Your task to perform on an android device: Open wifi settings Image 0: 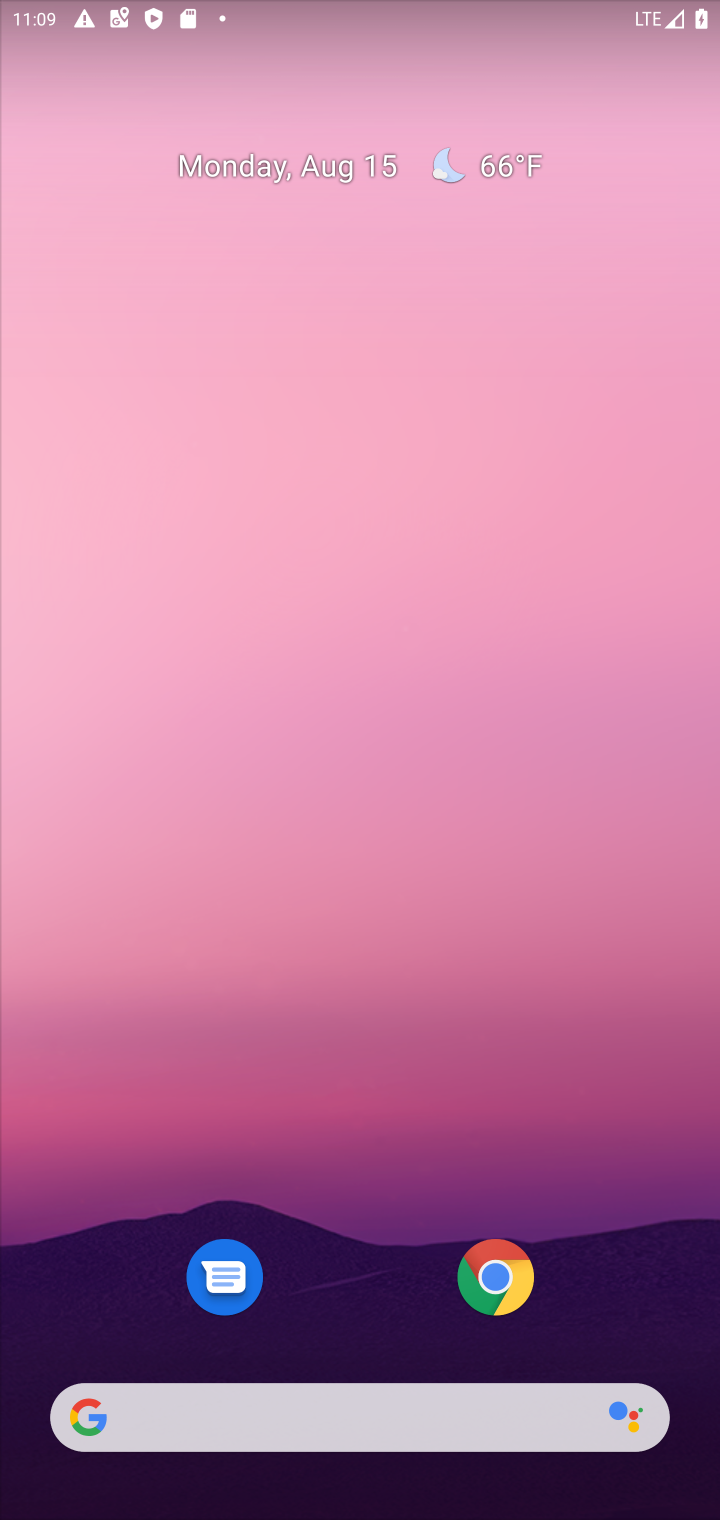
Step 0: drag from (477, 1407) to (520, 507)
Your task to perform on an android device: Open wifi settings Image 1: 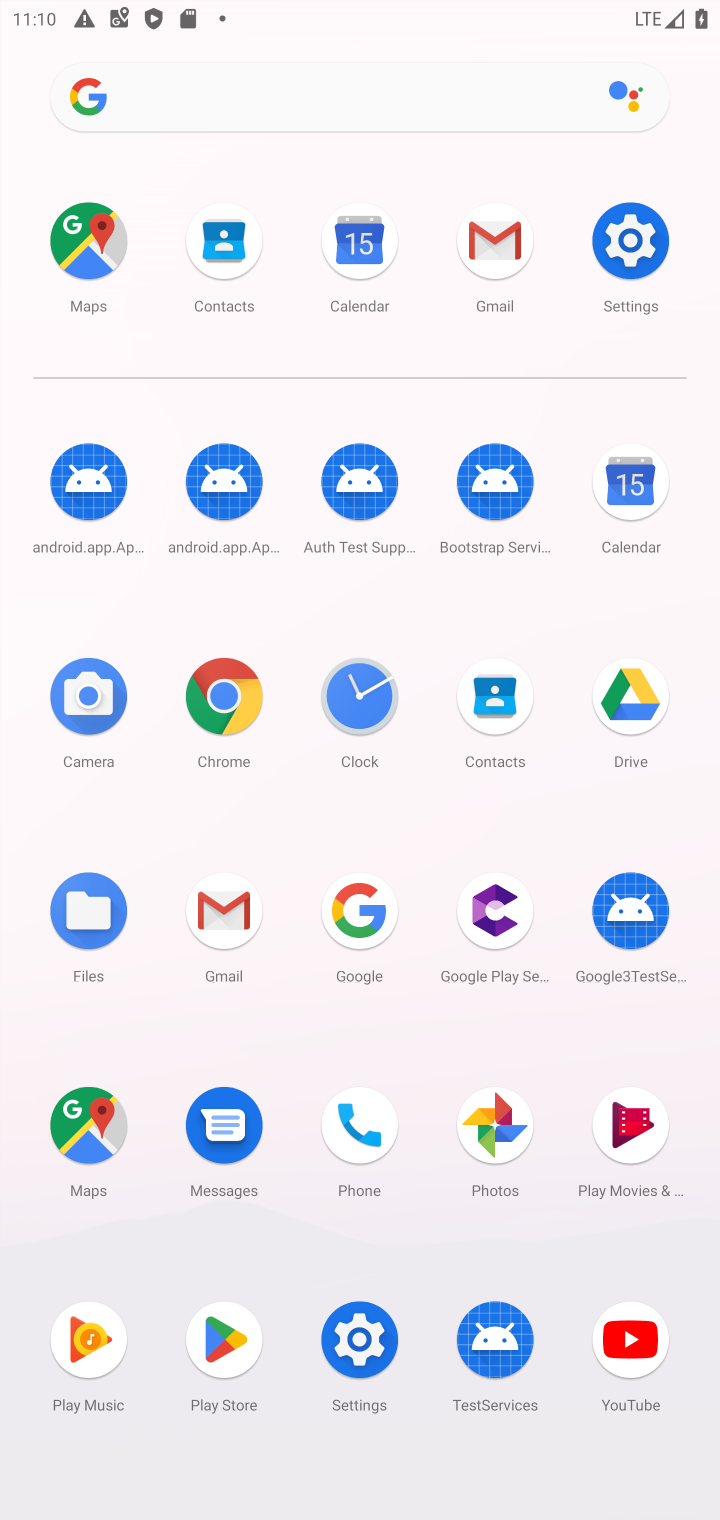
Step 1: click (626, 234)
Your task to perform on an android device: Open wifi settings Image 2: 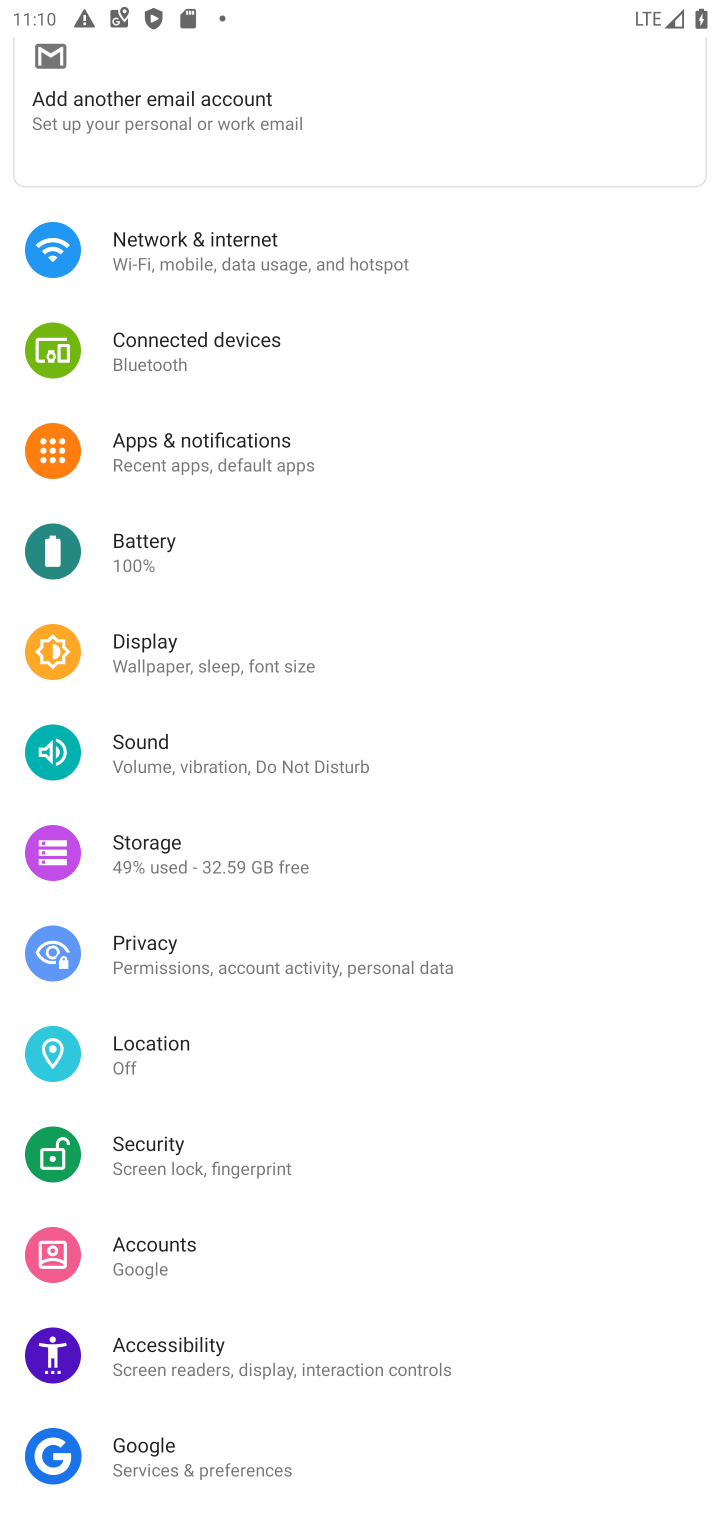
Step 2: click (400, 240)
Your task to perform on an android device: Open wifi settings Image 3: 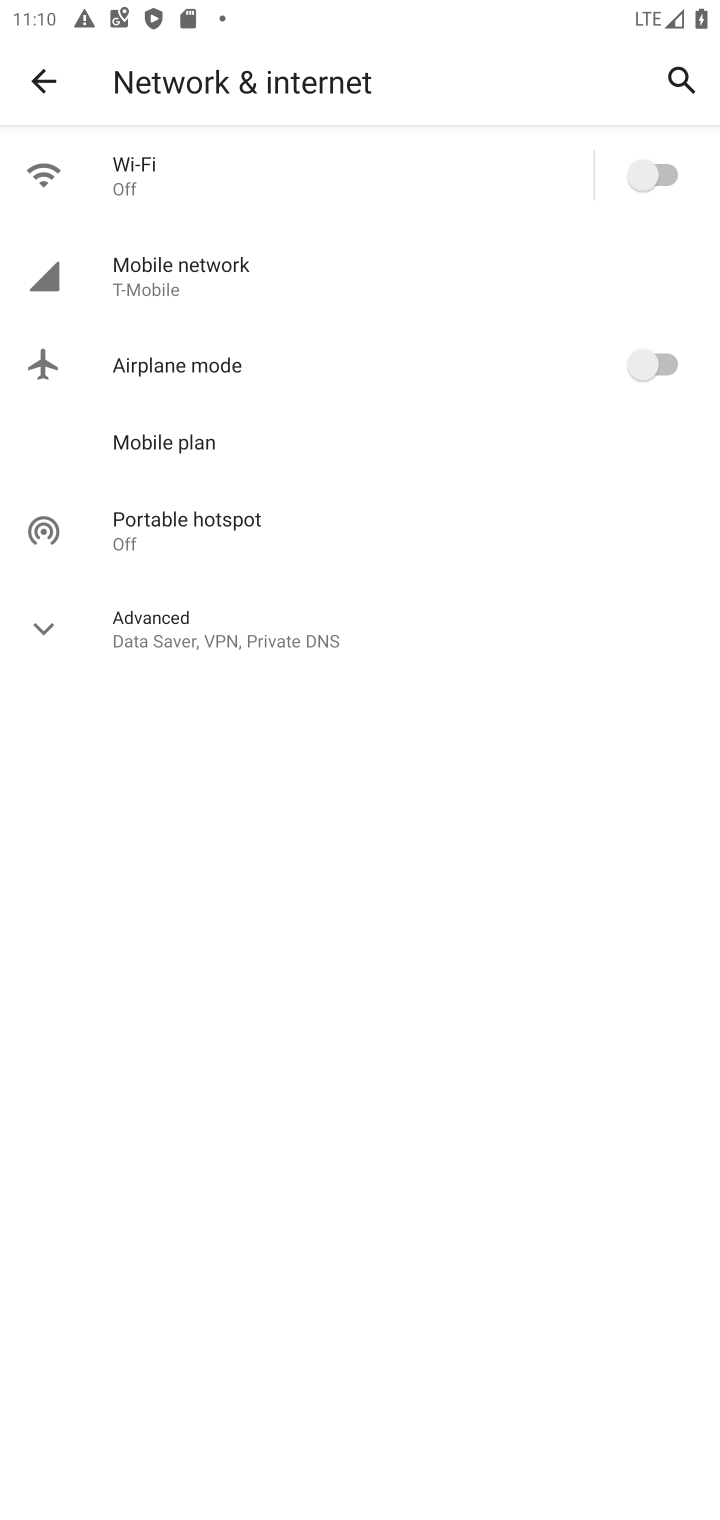
Step 3: click (242, 189)
Your task to perform on an android device: Open wifi settings Image 4: 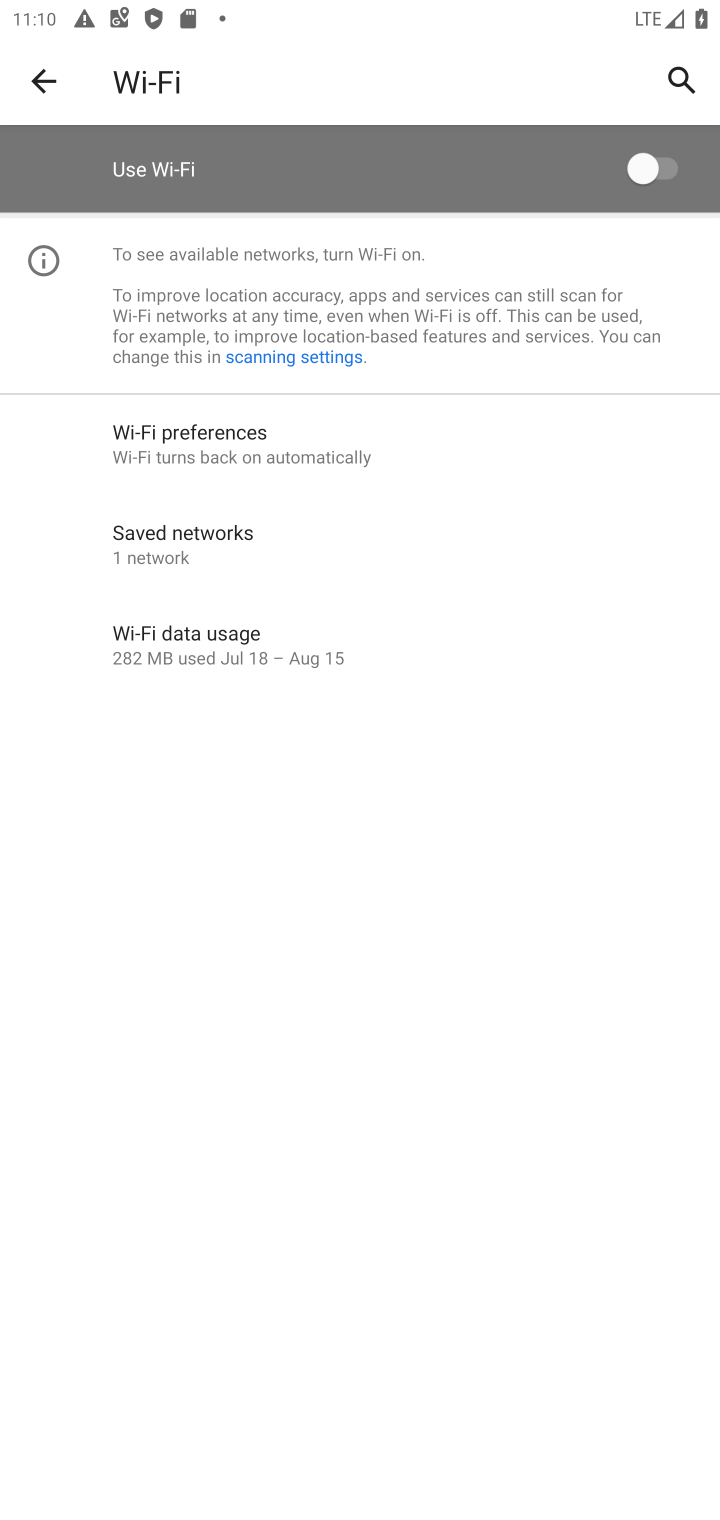
Step 4: task complete